Your task to perform on an android device: turn on airplane mode Image 0: 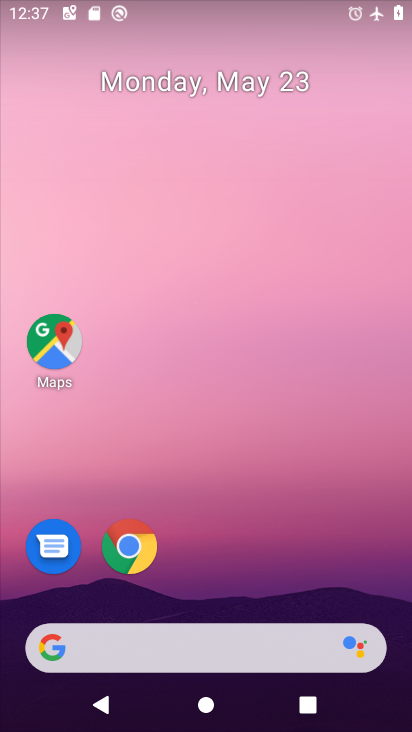
Step 0: drag from (267, 556) to (284, 24)
Your task to perform on an android device: turn on airplane mode Image 1: 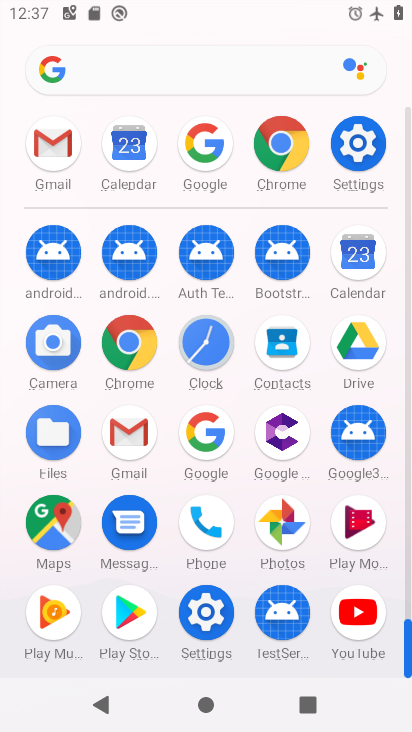
Step 1: click (371, 164)
Your task to perform on an android device: turn on airplane mode Image 2: 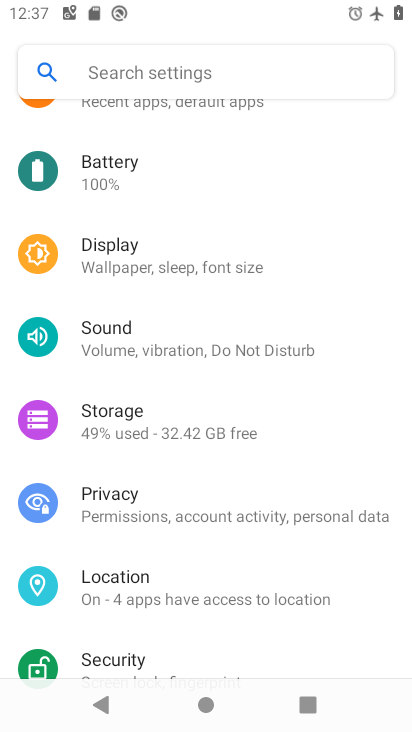
Step 2: drag from (228, 158) to (167, 717)
Your task to perform on an android device: turn on airplane mode Image 3: 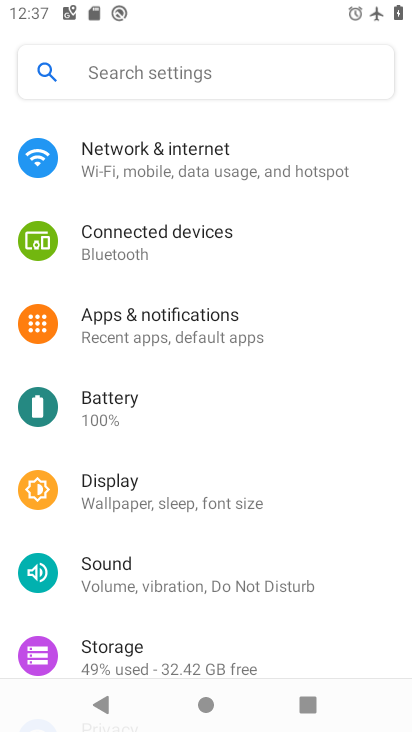
Step 3: click (226, 177)
Your task to perform on an android device: turn on airplane mode Image 4: 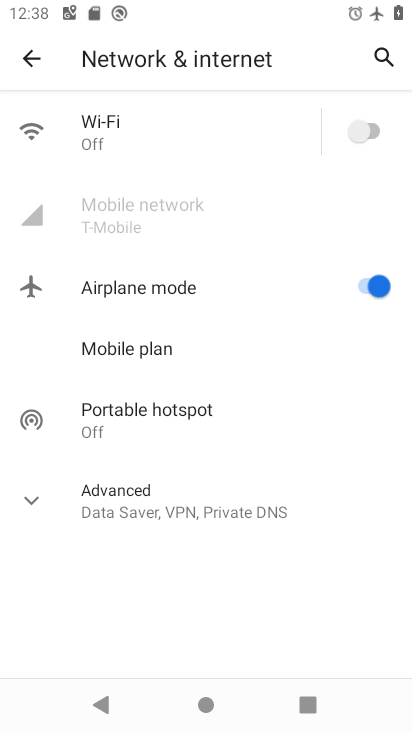
Step 4: task complete